Your task to perform on an android device: Go to Android settings Image 0: 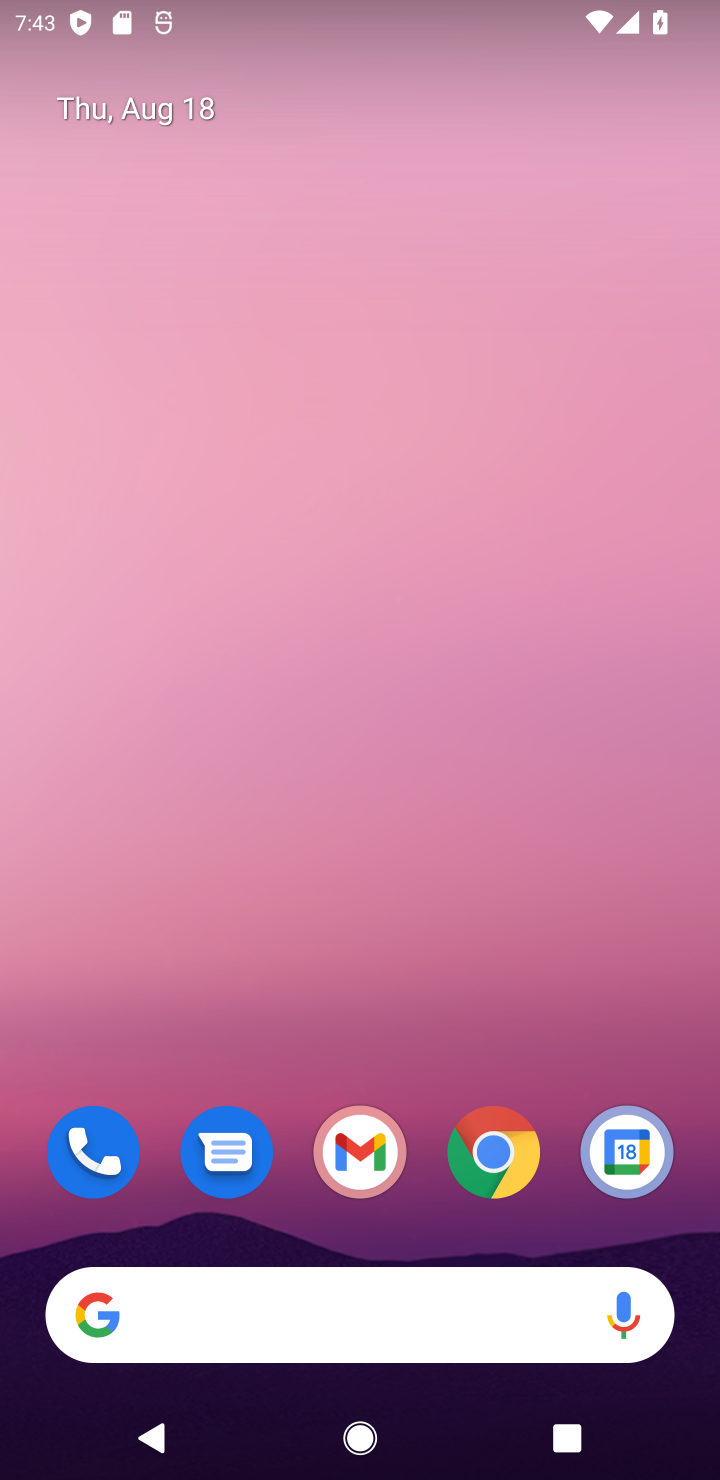
Step 0: press home button
Your task to perform on an android device: Go to Android settings Image 1: 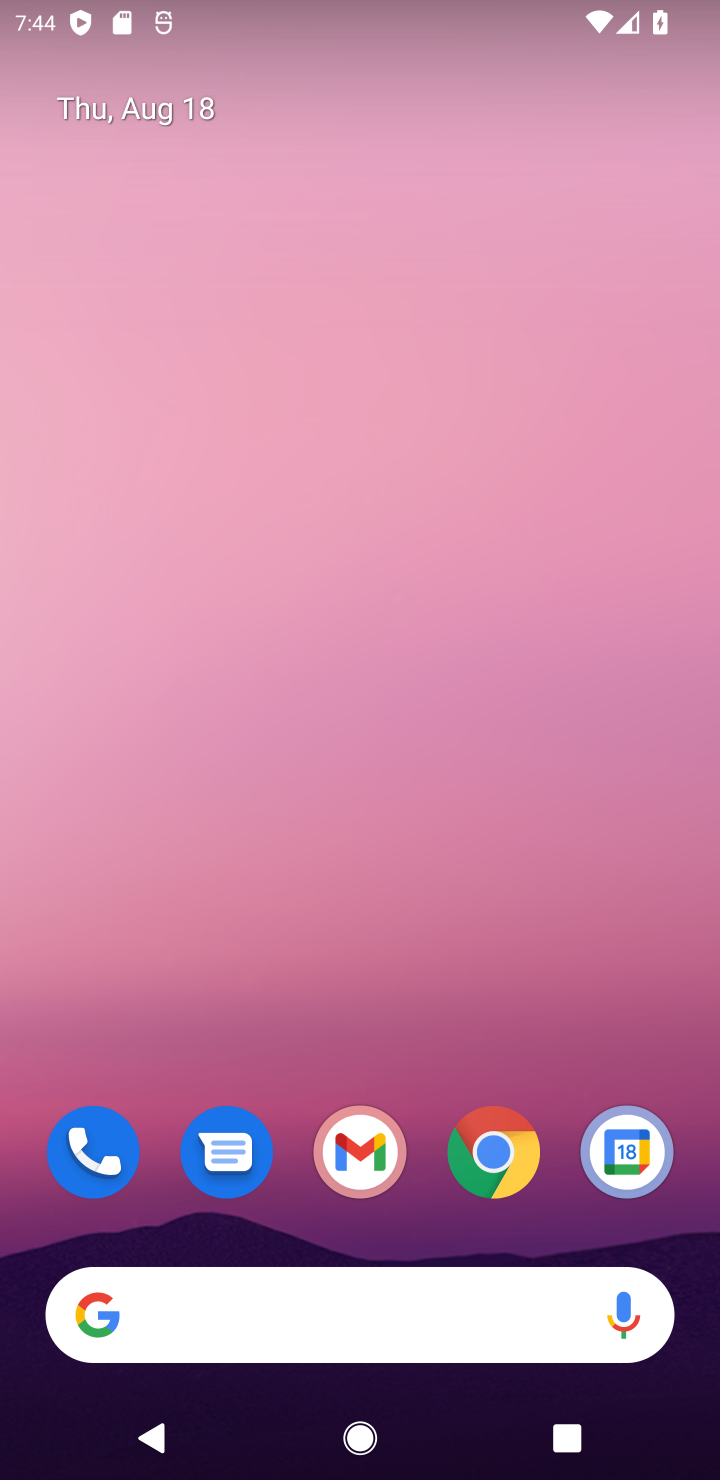
Step 1: drag from (440, 1239) to (442, 0)
Your task to perform on an android device: Go to Android settings Image 2: 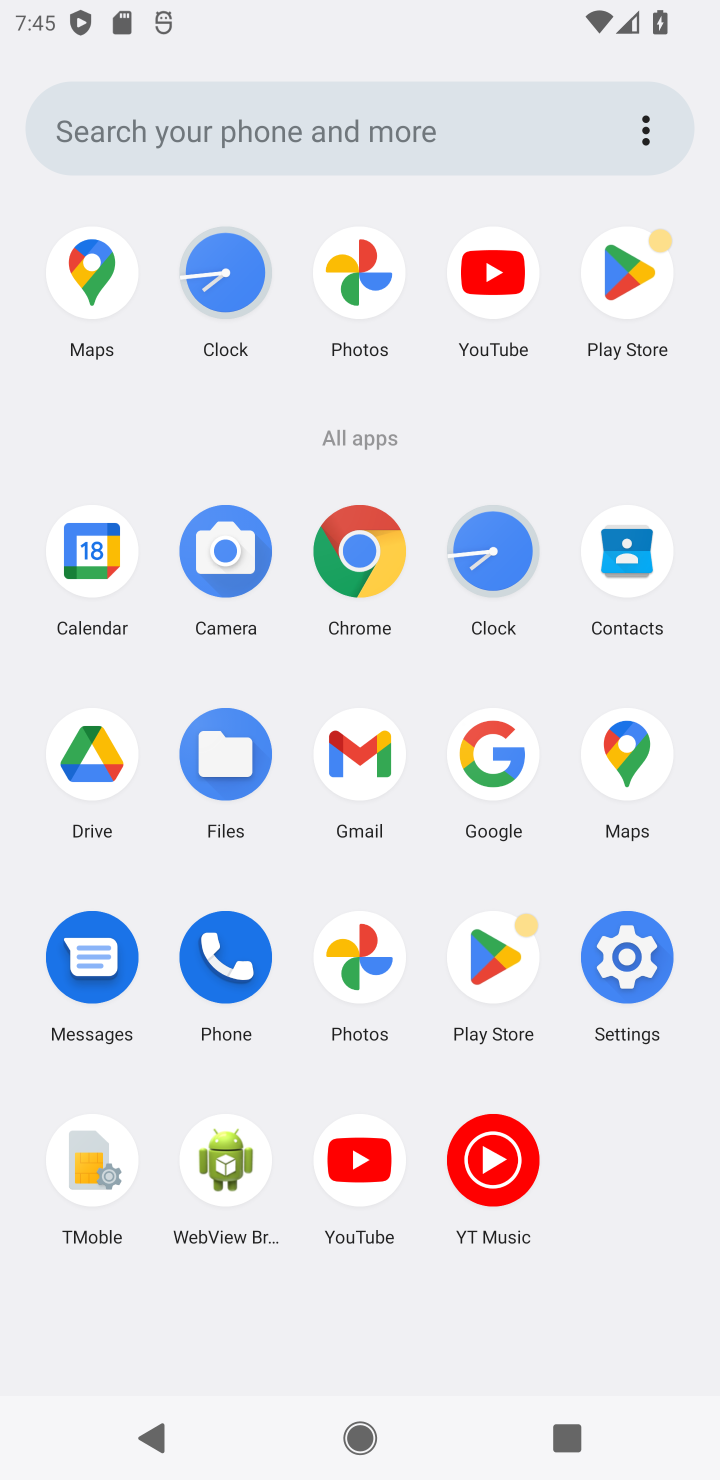
Step 2: click (599, 978)
Your task to perform on an android device: Go to Android settings Image 3: 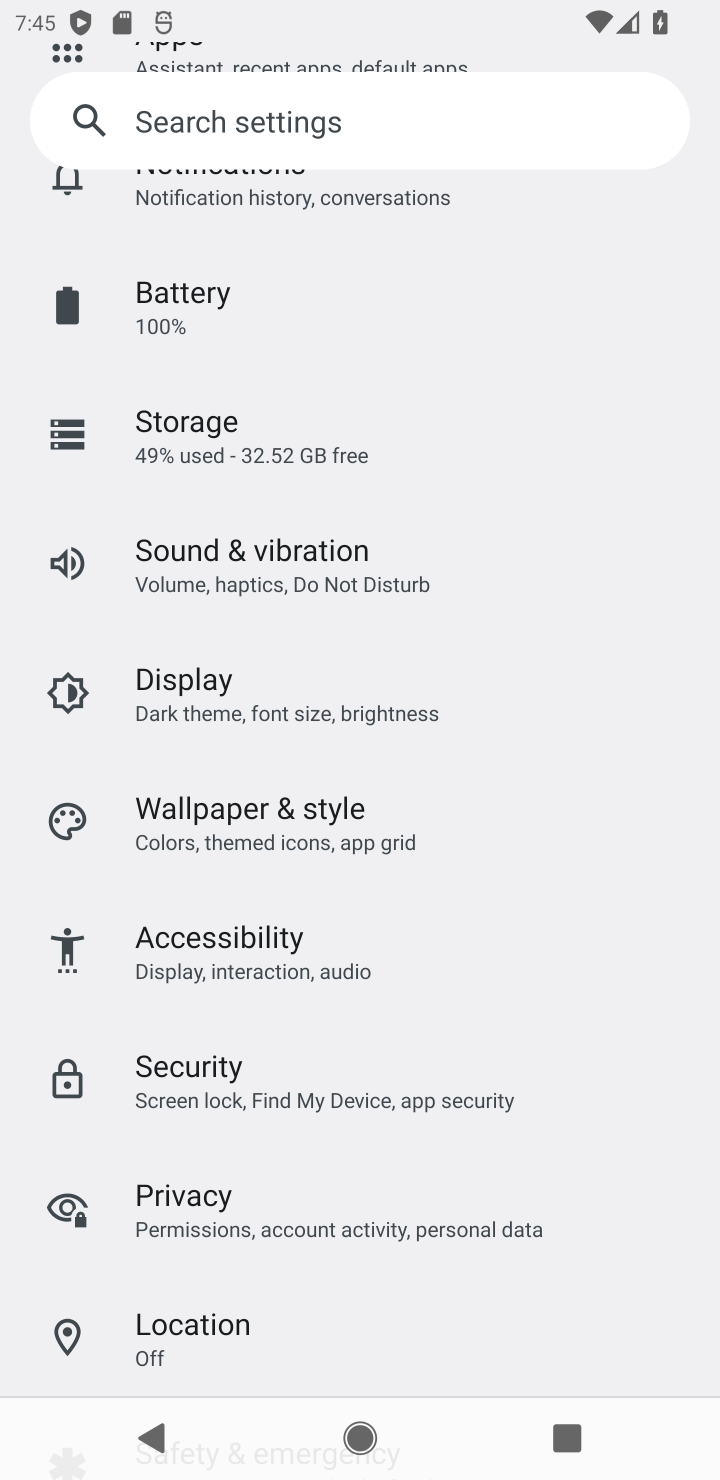
Step 3: task complete